Your task to perform on an android device: Open display settings Image 0: 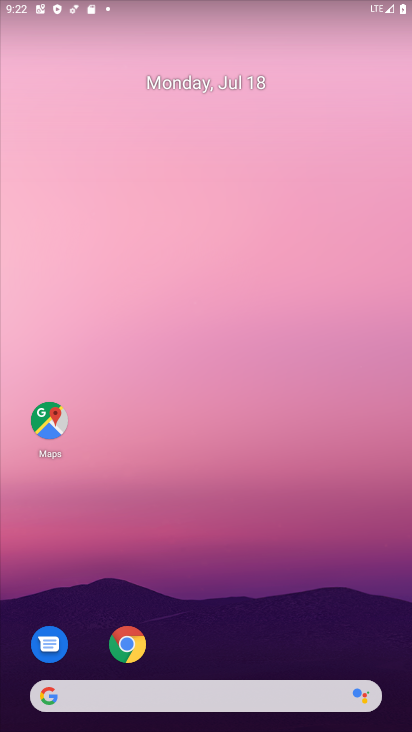
Step 0: drag from (238, 656) to (159, 9)
Your task to perform on an android device: Open display settings Image 1: 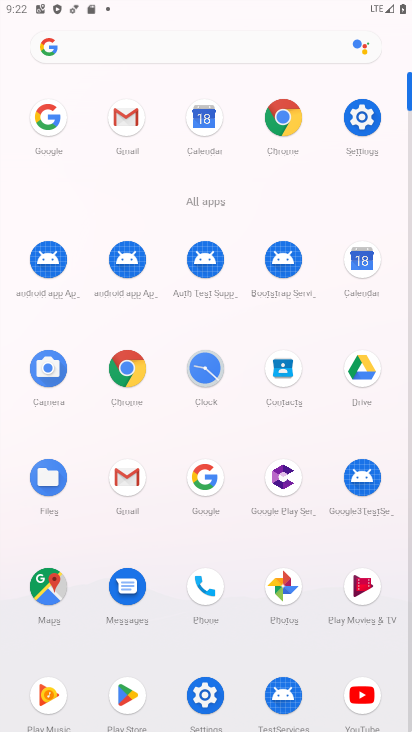
Step 1: click (363, 124)
Your task to perform on an android device: Open display settings Image 2: 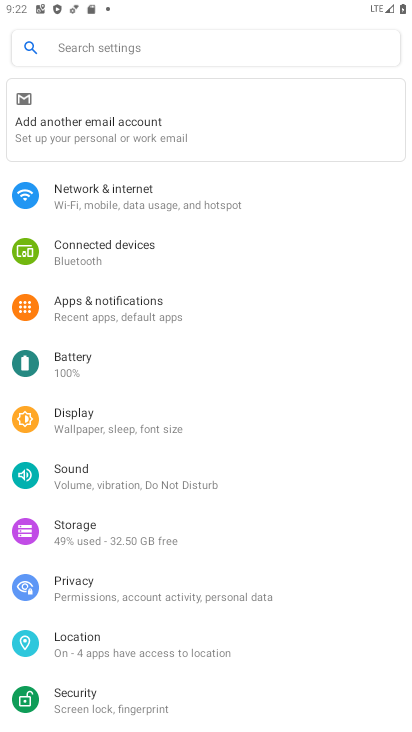
Step 2: click (91, 422)
Your task to perform on an android device: Open display settings Image 3: 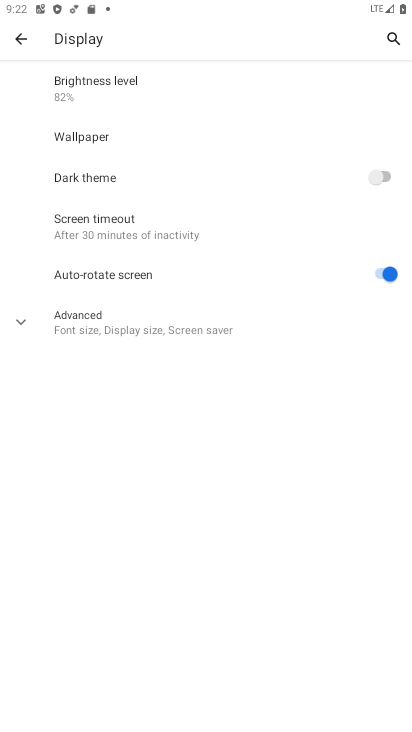
Step 3: task complete